Your task to perform on an android device: turn pop-ups off in chrome Image 0: 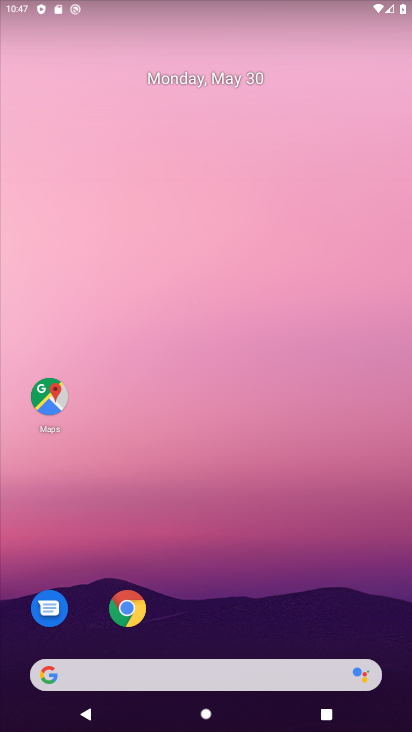
Step 0: click (126, 611)
Your task to perform on an android device: turn pop-ups off in chrome Image 1: 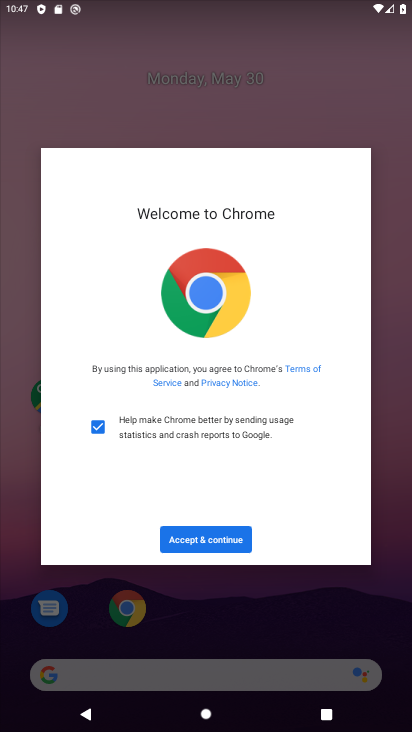
Step 1: click (214, 544)
Your task to perform on an android device: turn pop-ups off in chrome Image 2: 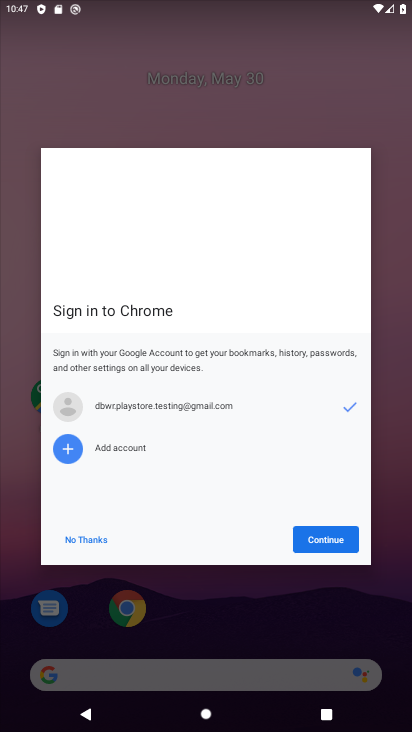
Step 2: click (101, 543)
Your task to perform on an android device: turn pop-ups off in chrome Image 3: 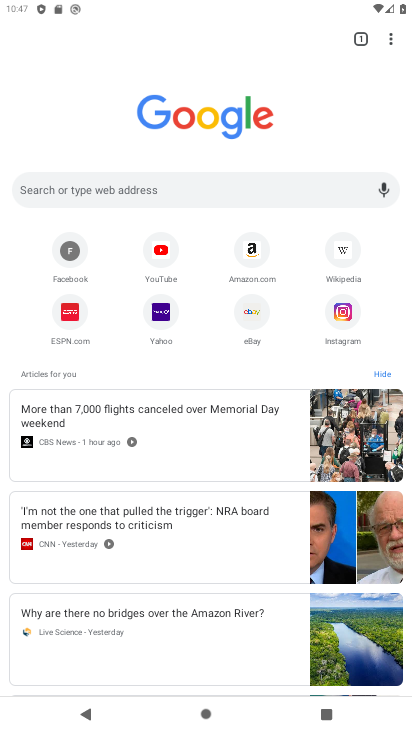
Step 3: click (393, 35)
Your task to perform on an android device: turn pop-ups off in chrome Image 4: 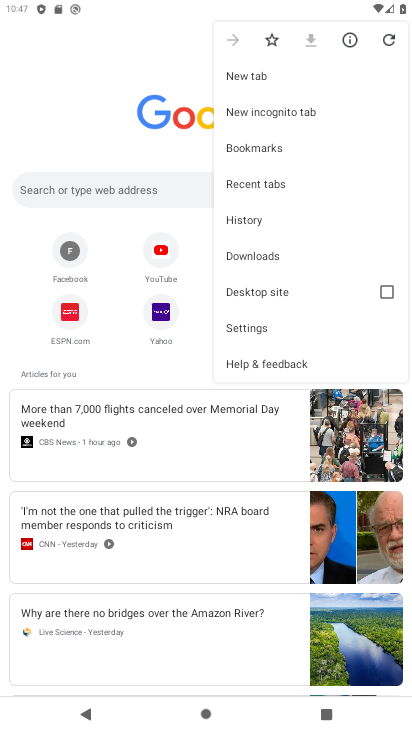
Step 4: click (244, 328)
Your task to perform on an android device: turn pop-ups off in chrome Image 5: 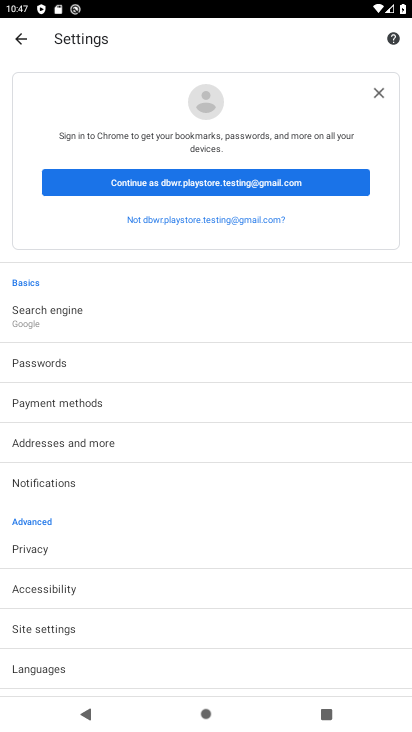
Step 5: click (67, 632)
Your task to perform on an android device: turn pop-ups off in chrome Image 6: 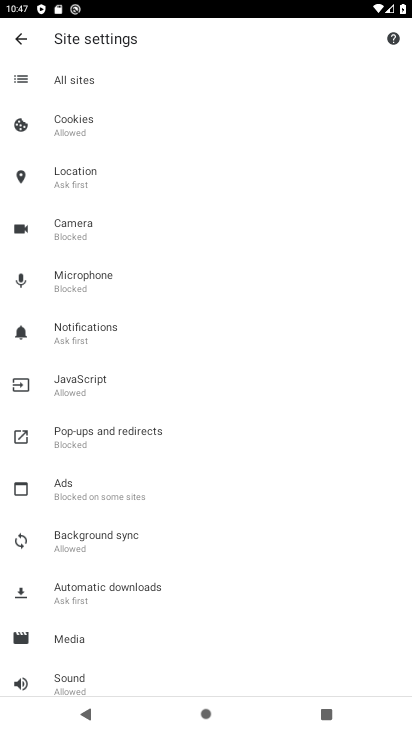
Step 6: click (99, 436)
Your task to perform on an android device: turn pop-ups off in chrome Image 7: 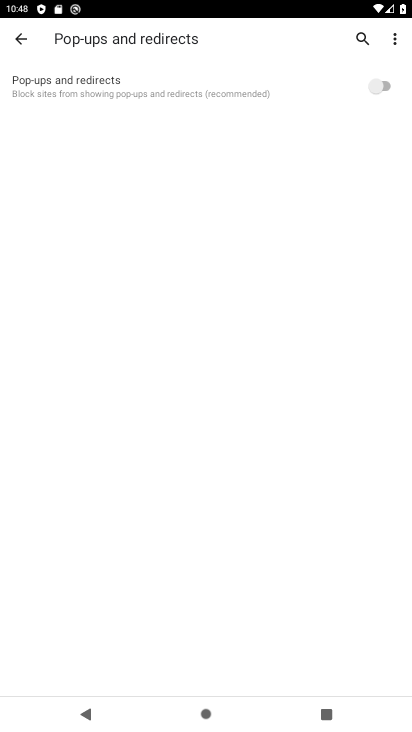
Step 7: task complete